Your task to perform on an android device: install app "Google Home" Image 0: 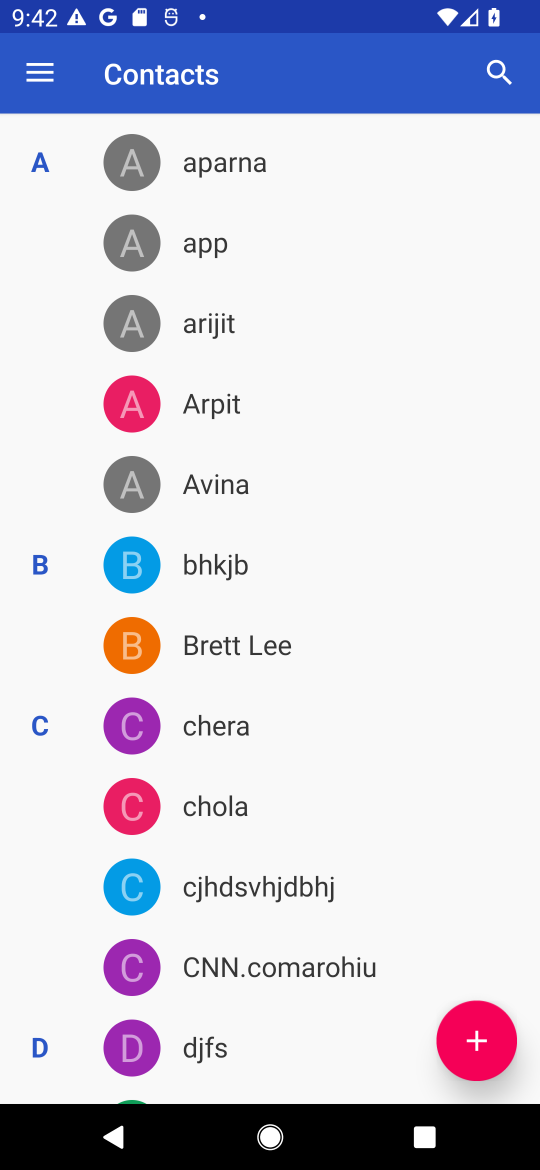
Step 0: press home button
Your task to perform on an android device: install app "Google Home" Image 1: 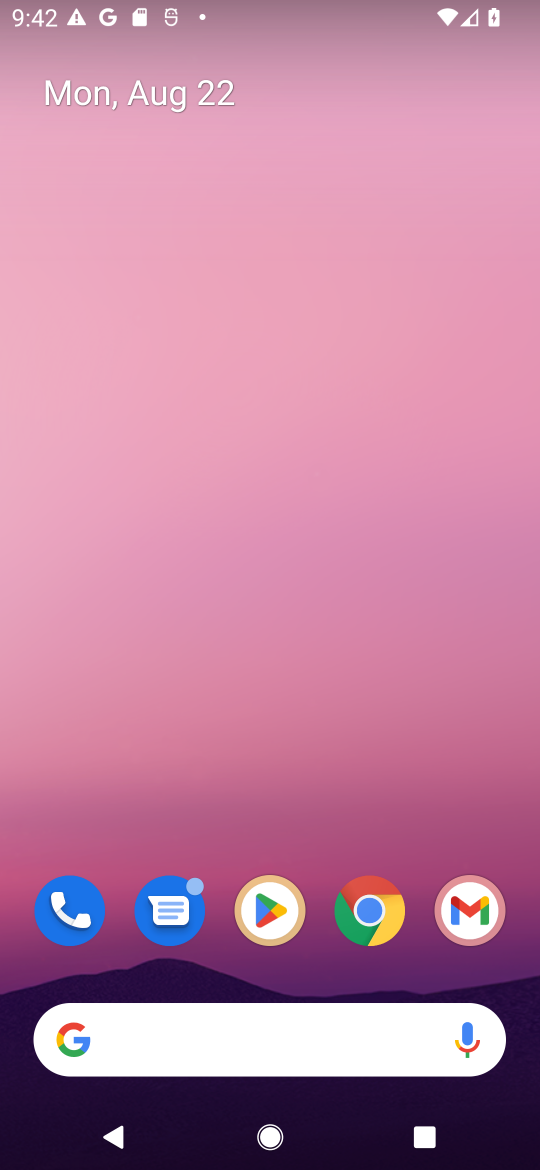
Step 1: click (264, 915)
Your task to perform on an android device: install app "Google Home" Image 2: 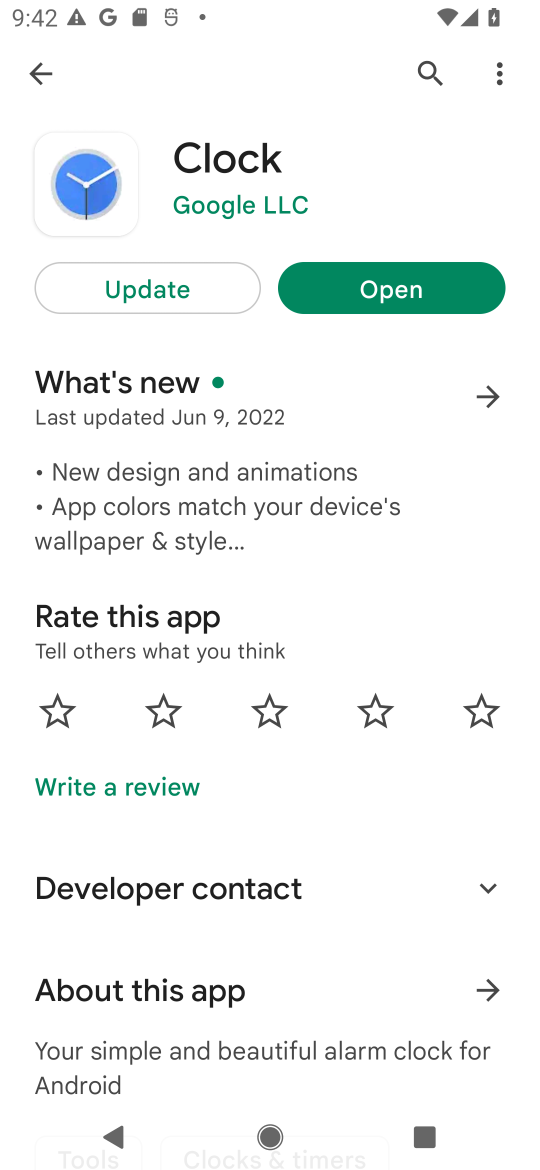
Step 2: click (434, 55)
Your task to perform on an android device: install app "Google Home" Image 3: 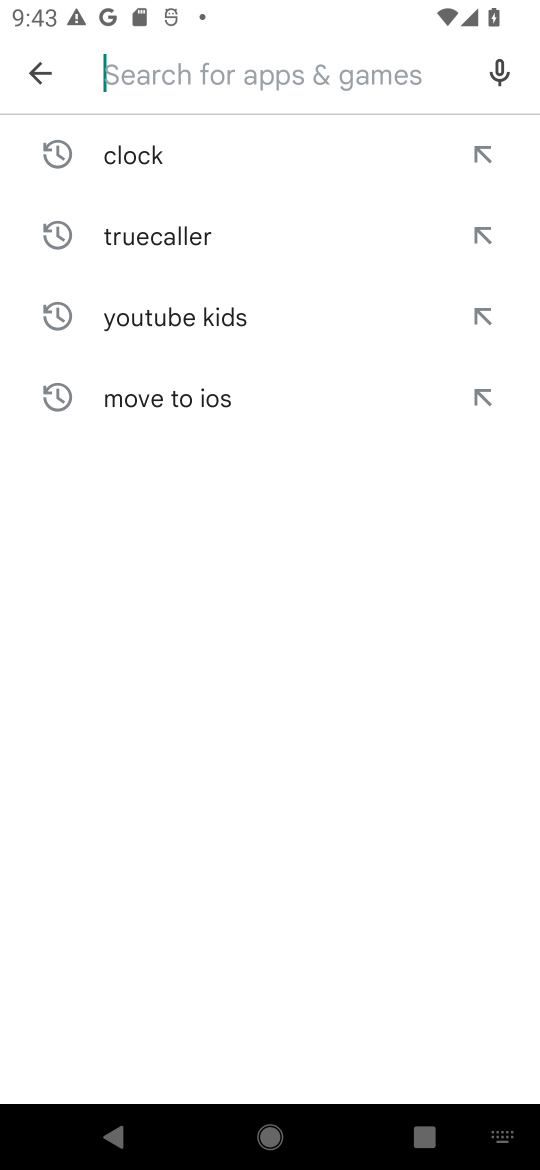
Step 3: type "Google Home"
Your task to perform on an android device: install app "Google Home" Image 4: 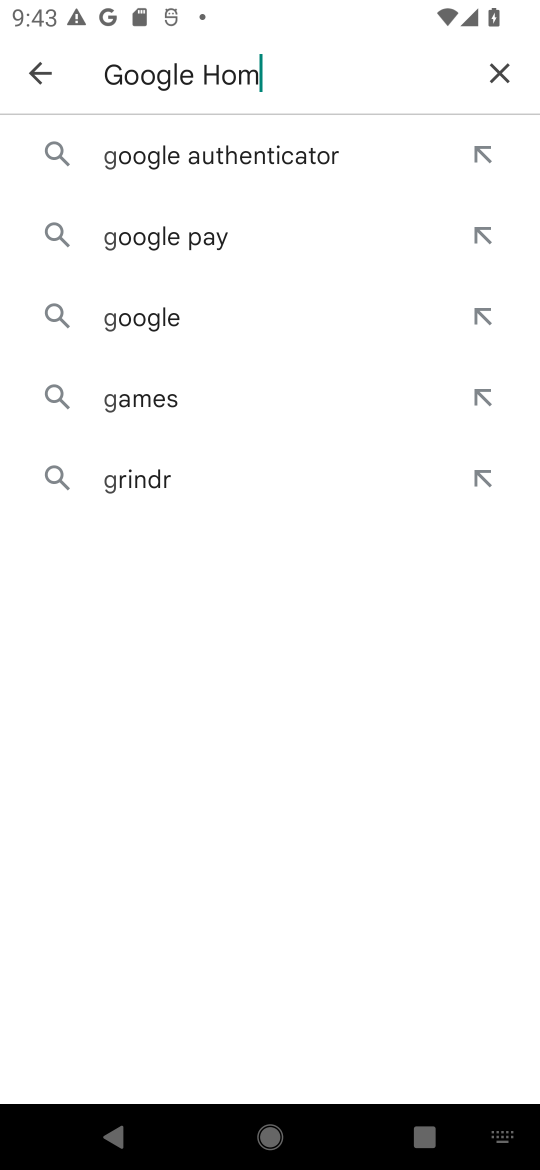
Step 4: type ""
Your task to perform on an android device: install app "Google Home" Image 5: 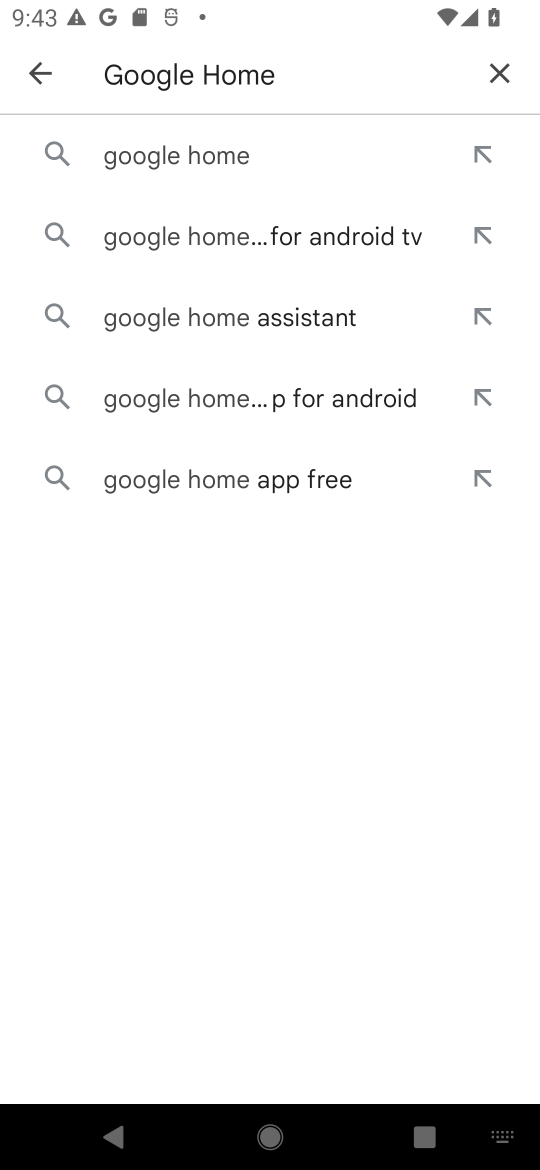
Step 5: click (199, 172)
Your task to perform on an android device: install app "Google Home" Image 6: 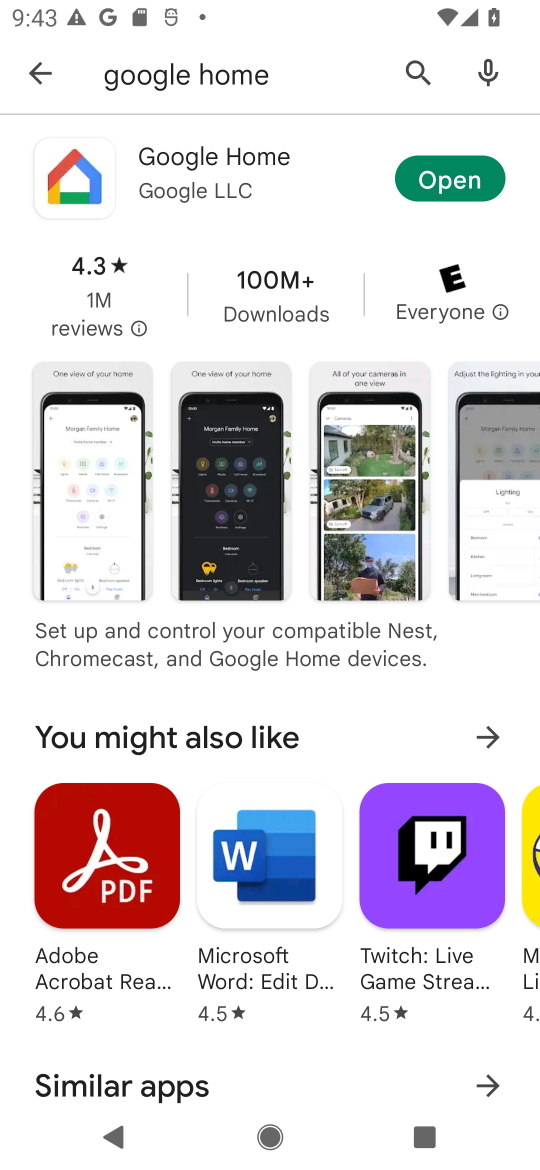
Step 6: task complete